Your task to perform on an android device: add a contact in the contacts app Image 0: 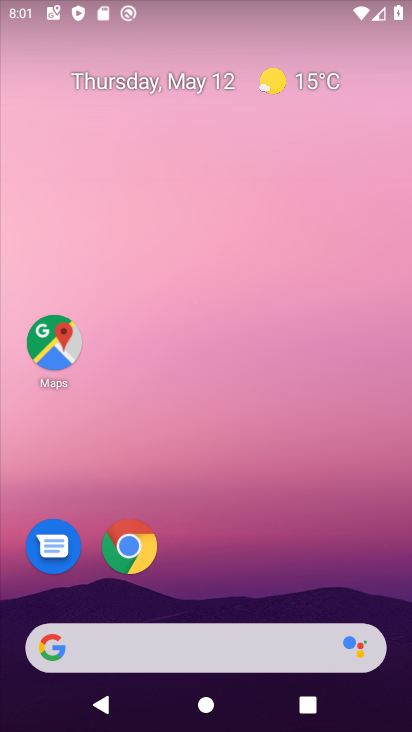
Step 0: drag from (271, 631) to (353, 107)
Your task to perform on an android device: add a contact in the contacts app Image 1: 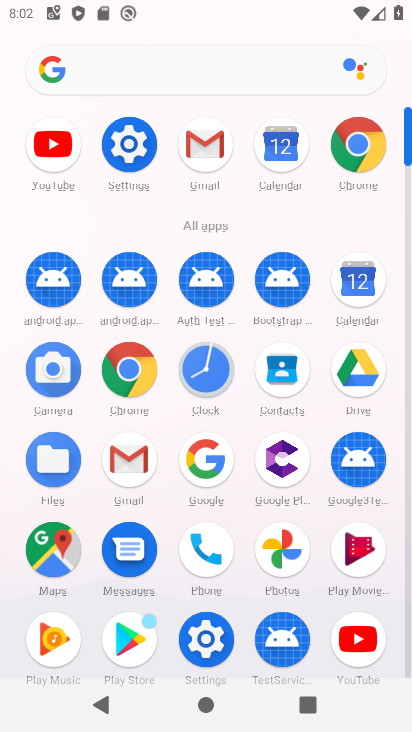
Step 1: click (282, 375)
Your task to perform on an android device: add a contact in the contacts app Image 2: 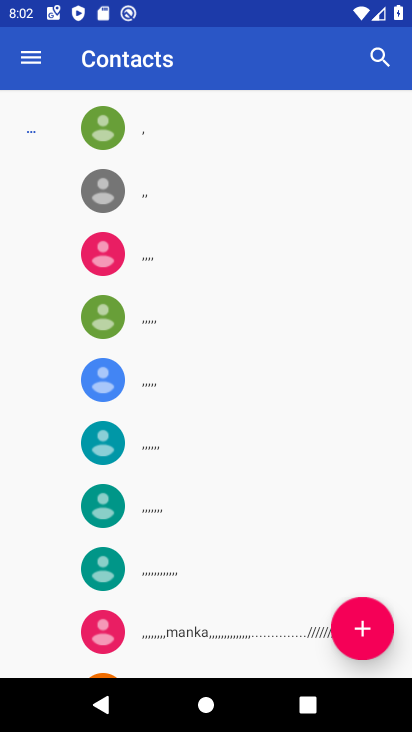
Step 2: click (362, 639)
Your task to perform on an android device: add a contact in the contacts app Image 3: 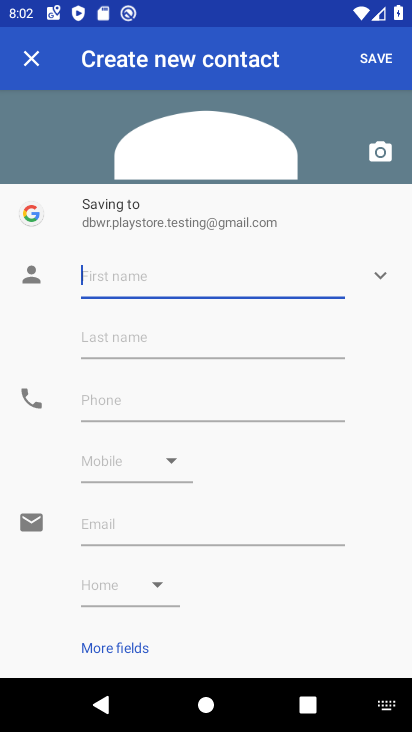
Step 3: click (204, 275)
Your task to perform on an android device: add a contact in the contacts app Image 4: 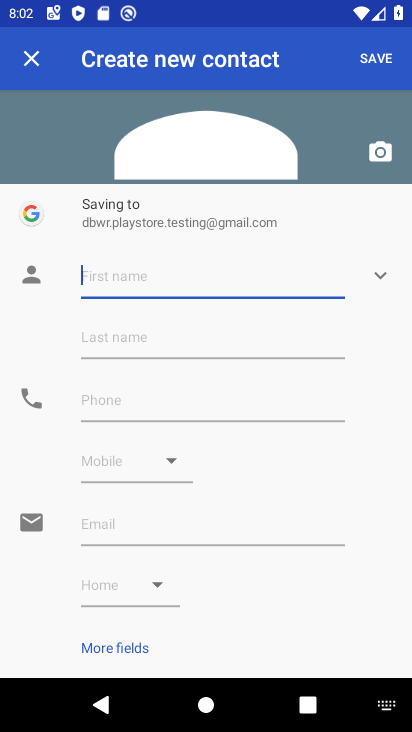
Step 4: type "bhgf"
Your task to perform on an android device: add a contact in the contacts app Image 5: 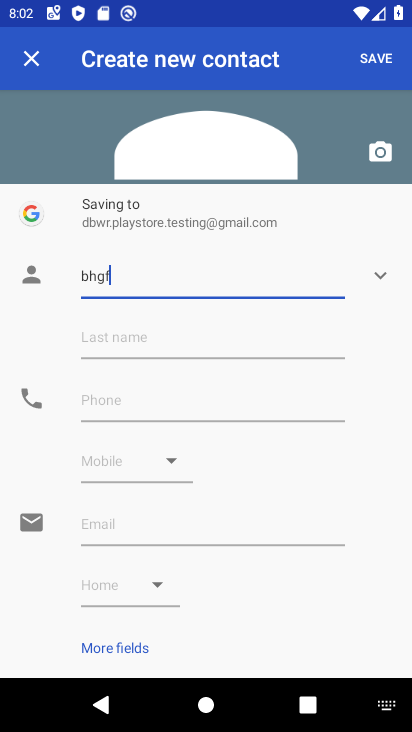
Step 5: click (111, 398)
Your task to perform on an android device: add a contact in the contacts app Image 6: 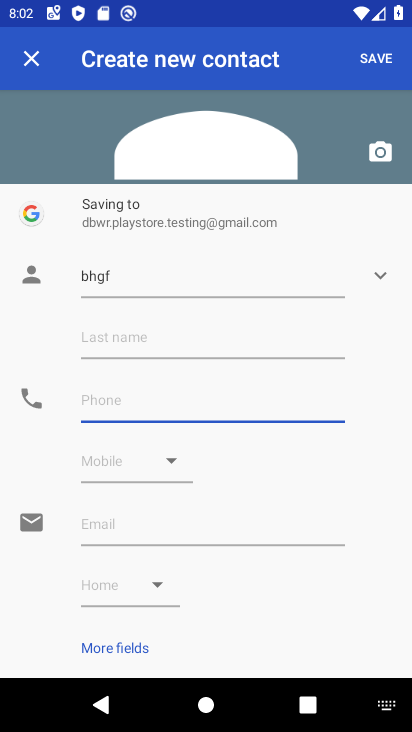
Step 6: type "0214"
Your task to perform on an android device: add a contact in the contacts app Image 7: 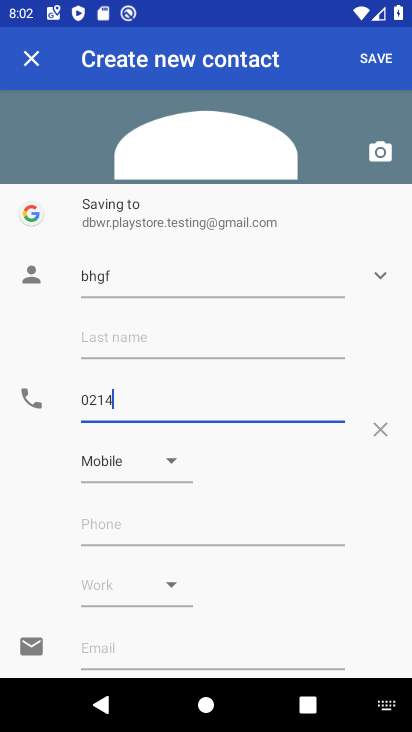
Step 7: click (384, 53)
Your task to perform on an android device: add a contact in the contacts app Image 8: 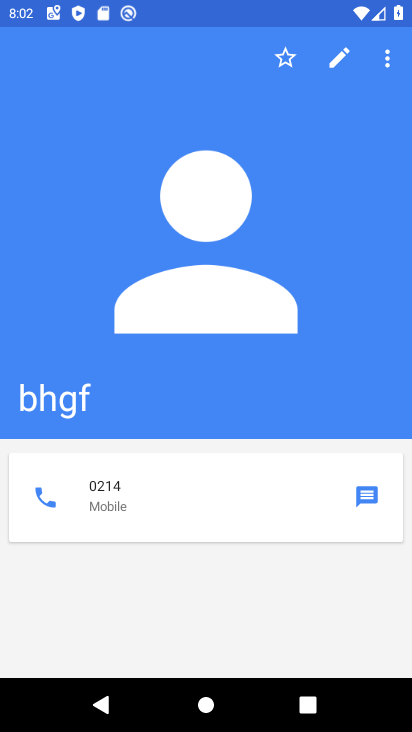
Step 8: task complete